Your task to perform on an android device: Open privacy settings Image 0: 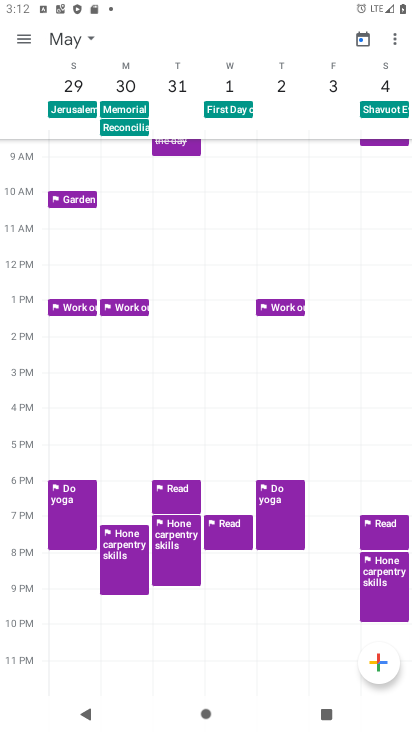
Step 0: press home button
Your task to perform on an android device: Open privacy settings Image 1: 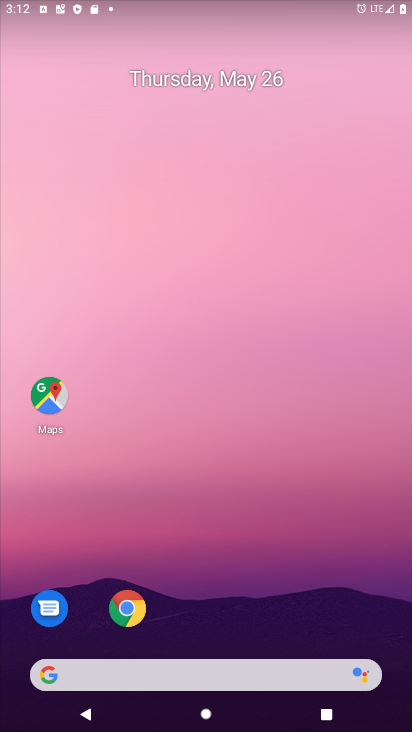
Step 1: drag from (348, 554) to (310, 21)
Your task to perform on an android device: Open privacy settings Image 2: 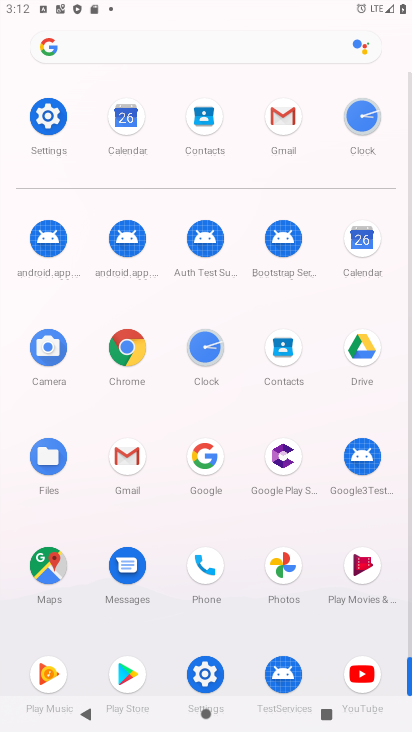
Step 2: click (203, 669)
Your task to perform on an android device: Open privacy settings Image 3: 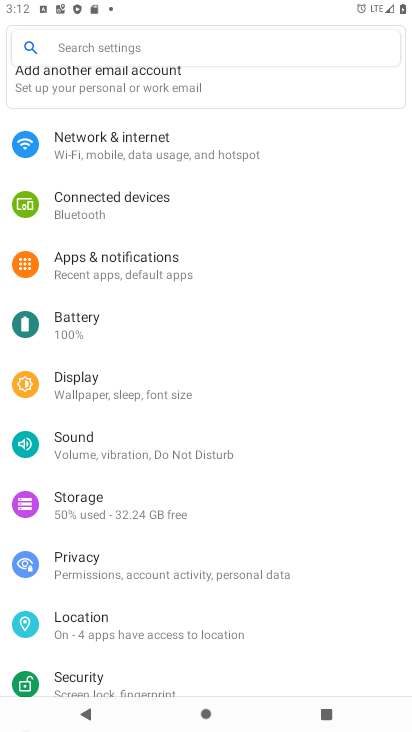
Step 3: click (82, 566)
Your task to perform on an android device: Open privacy settings Image 4: 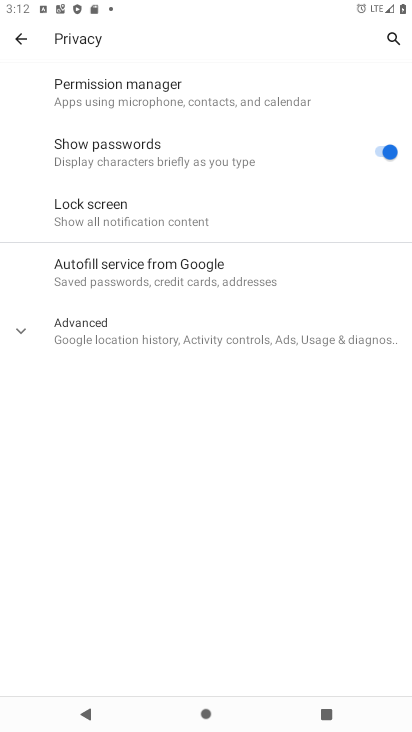
Step 4: click (22, 325)
Your task to perform on an android device: Open privacy settings Image 5: 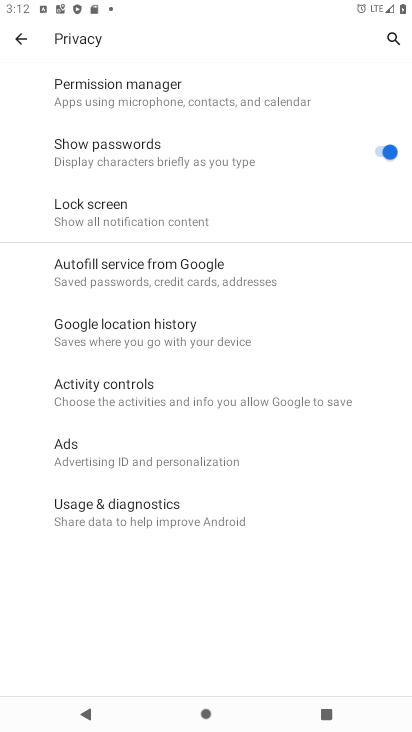
Step 5: task complete